Your task to perform on an android device: find snoozed emails in the gmail app Image 0: 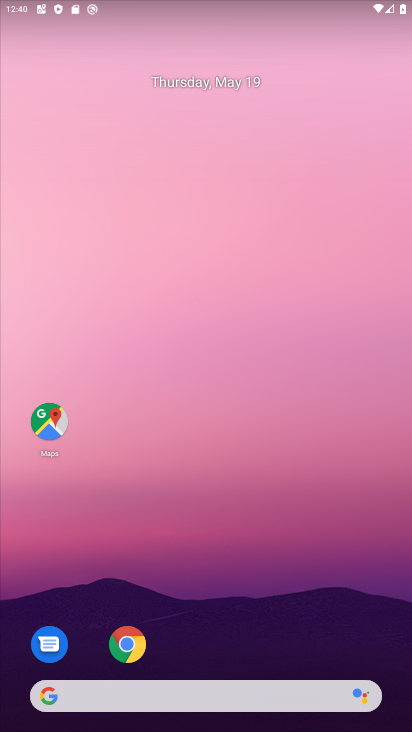
Step 0: drag from (317, 611) to (321, 135)
Your task to perform on an android device: find snoozed emails in the gmail app Image 1: 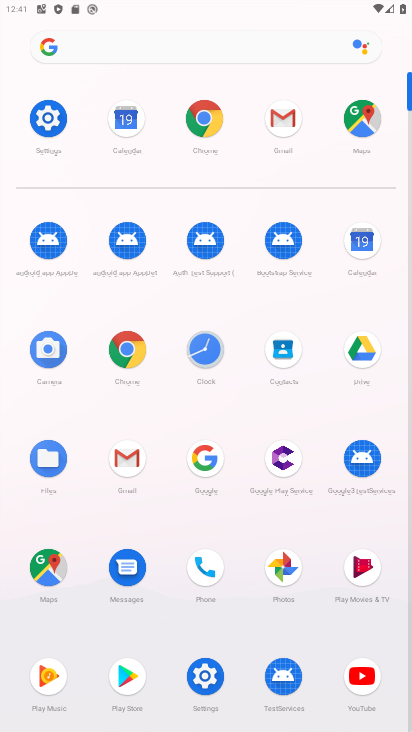
Step 1: click (128, 466)
Your task to perform on an android device: find snoozed emails in the gmail app Image 2: 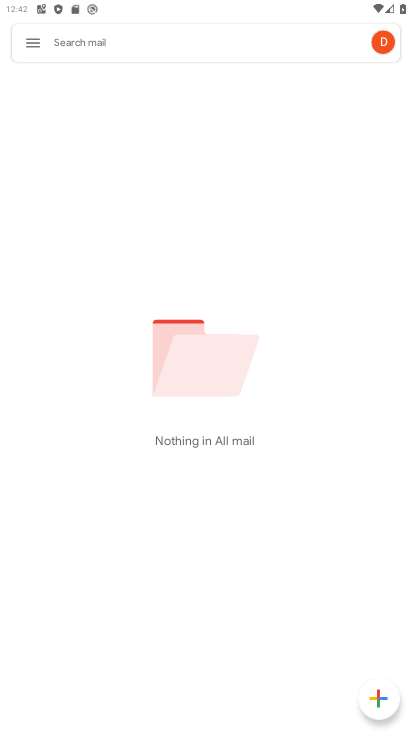
Step 2: click (26, 39)
Your task to perform on an android device: find snoozed emails in the gmail app Image 3: 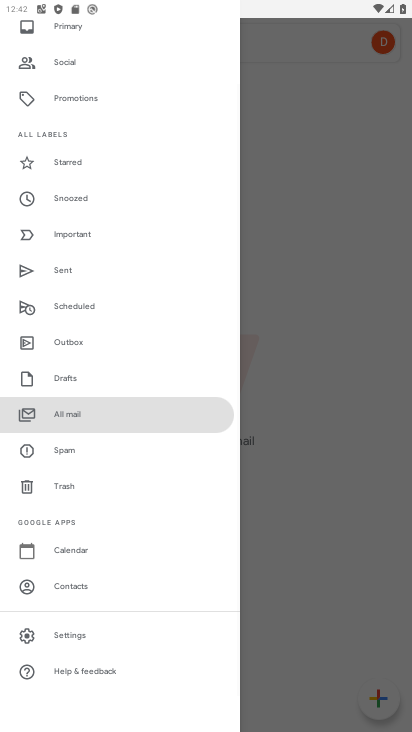
Step 3: click (95, 195)
Your task to perform on an android device: find snoozed emails in the gmail app Image 4: 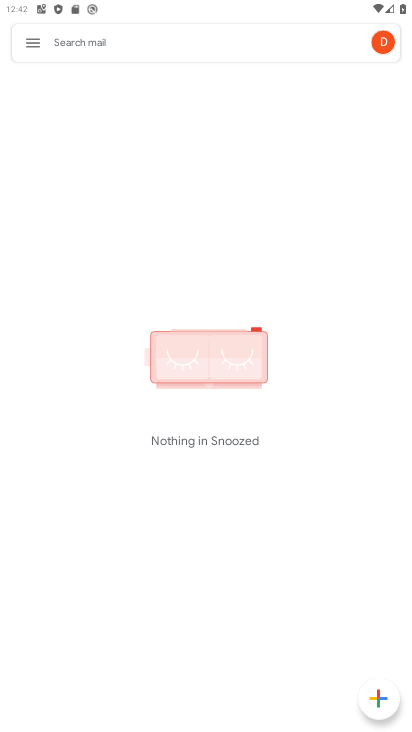
Step 4: task complete